Your task to perform on an android device: refresh tabs in the chrome app Image 0: 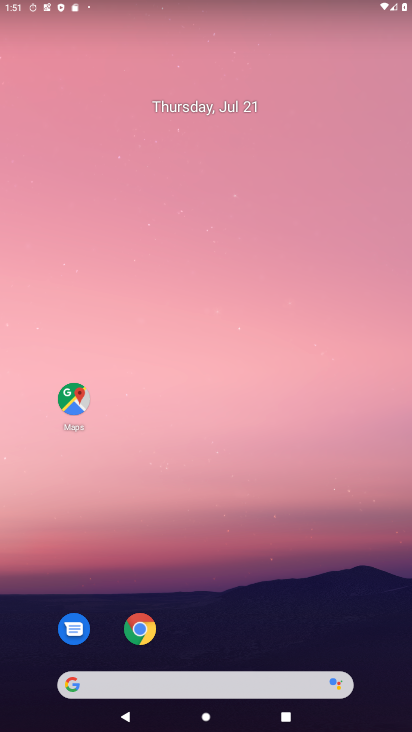
Step 0: click (154, 628)
Your task to perform on an android device: refresh tabs in the chrome app Image 1: 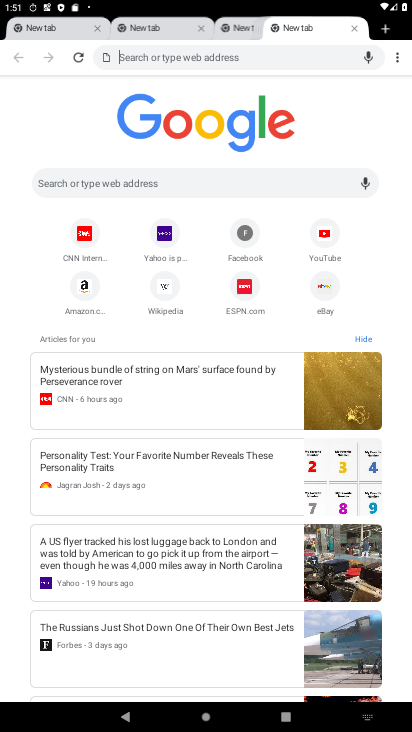
Step 1: click (384, 27)
Your task to perform on an android device: refresh tabs in the chrome app Image 2: 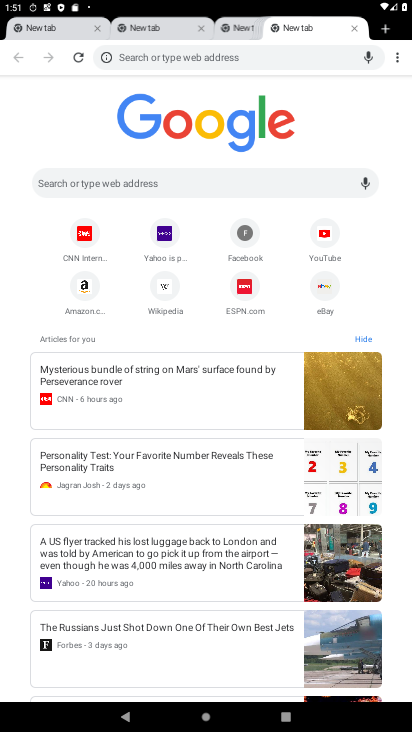
Step 2: task complete